Your task to perform on an android device: toggle show notifications on the lock screen Image 0: 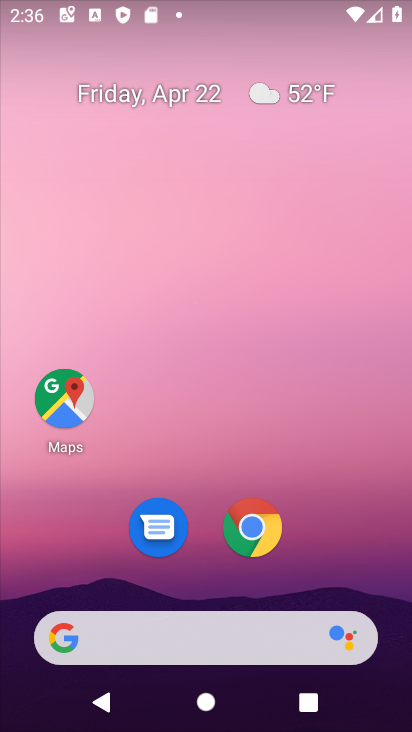
Step 0: drag from (349, 503) to (125, 0)
Your task to perform on an android device: toggle show notifications on the lock screen Image 1: 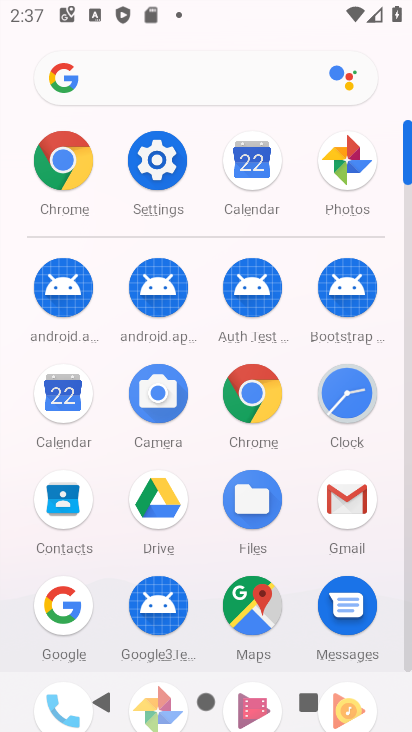
Step 1: click (154, 170)
Your task to perform on an android device: toggle show notifications on the lock screen Image 2: 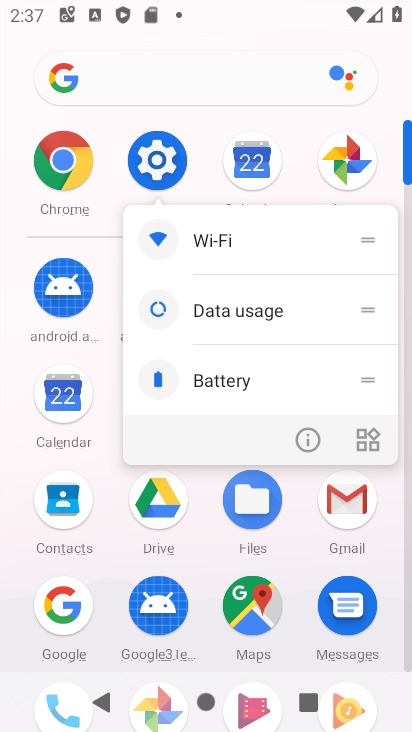
Step 2: click (154, 170)
Your task to perform on an android device: toggle show notifications on the lock screen Image 3: 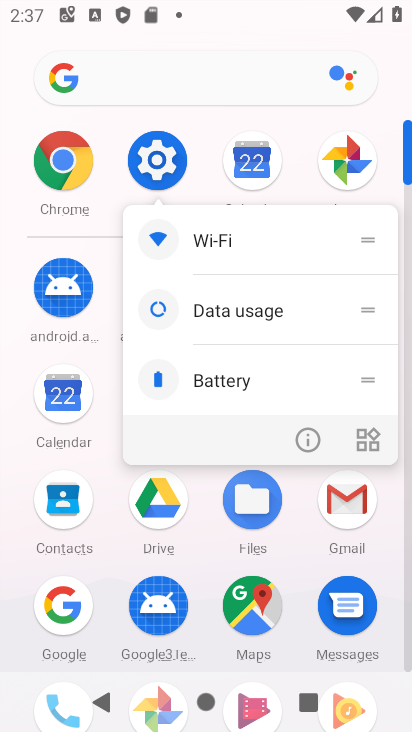
Step 3: click (154, 170)
Your task to perform on an android device: toggle show notifications on the lock screen Image 4: 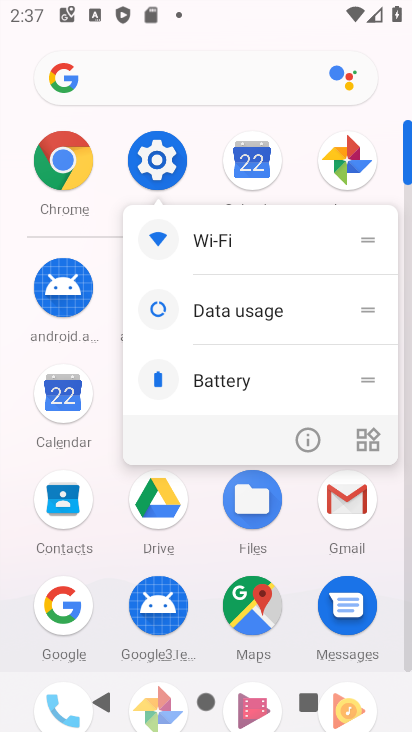
Step 4: click (154, 170)
Your task to perform on an android device: toggle show notifications on the lock screen Image 5: 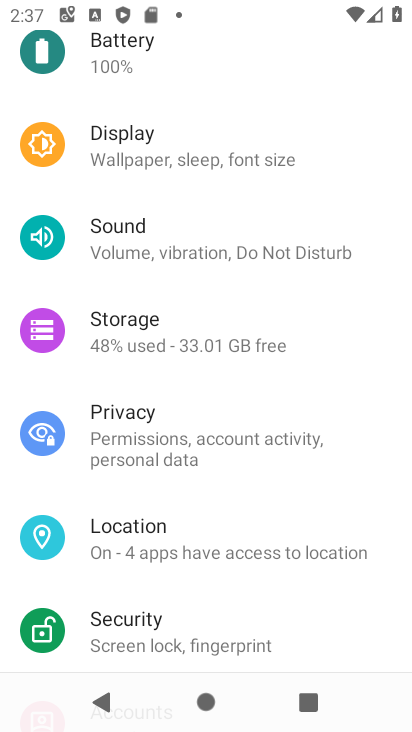
Step 5: drag from (233, 128) to (346, 542)
Your task to perform on an android device: toggle show notifications on the lock screen Image 6: 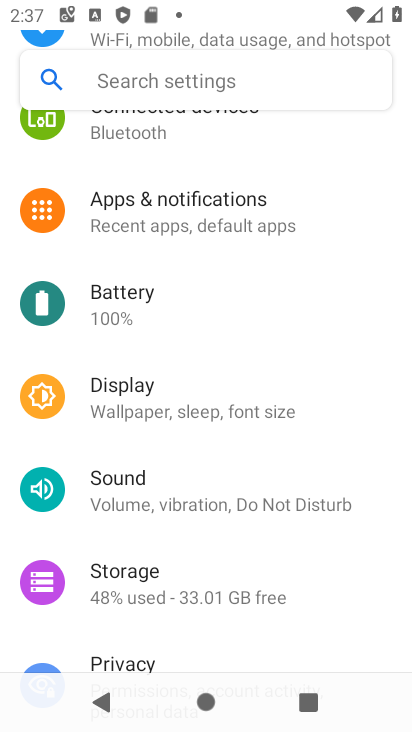
Step 6: drag from (253, 285) to (337, 600)
Your task to perform on an android device: toggle show notifications on the lock screen Image 7: 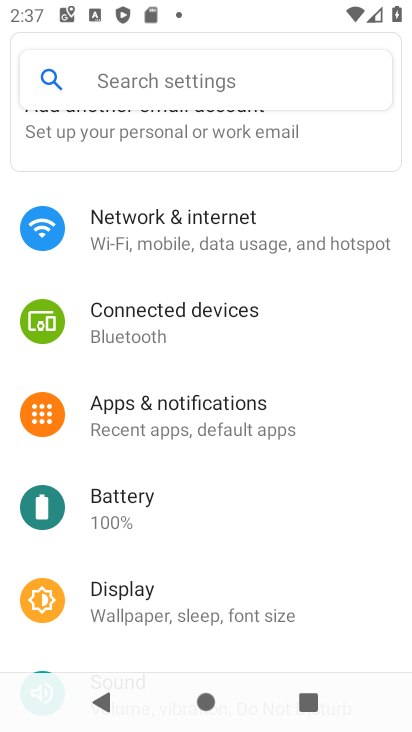
Step 7: drag from (202, 309) to (315, 656)
Your task to perform on an android device: toggle show notifications on the lock screen Image 8: 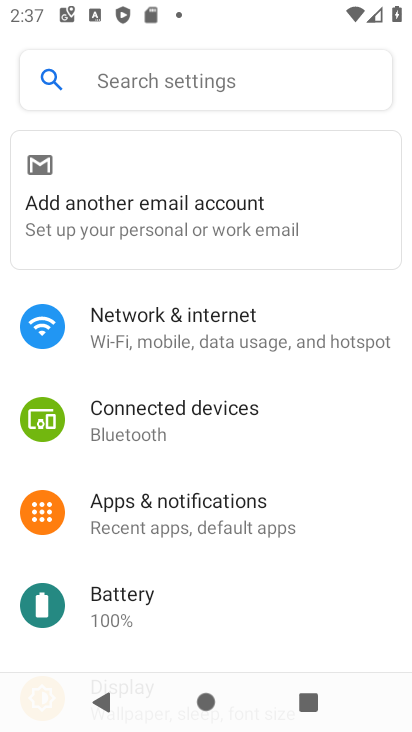
Step 8: click (208, 515)
Your task to perform on an android device: toggle show notifications on the lock screen Image 9: 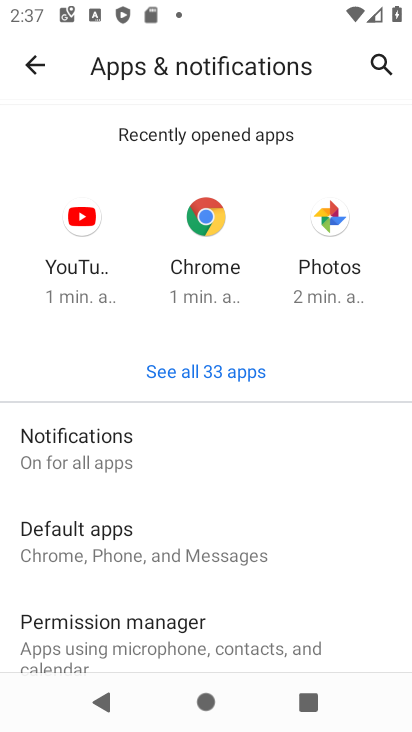
Step 9: click (59, 450)
Your task to perform on an android device: toggle show notifications on the lock screen Image 10: 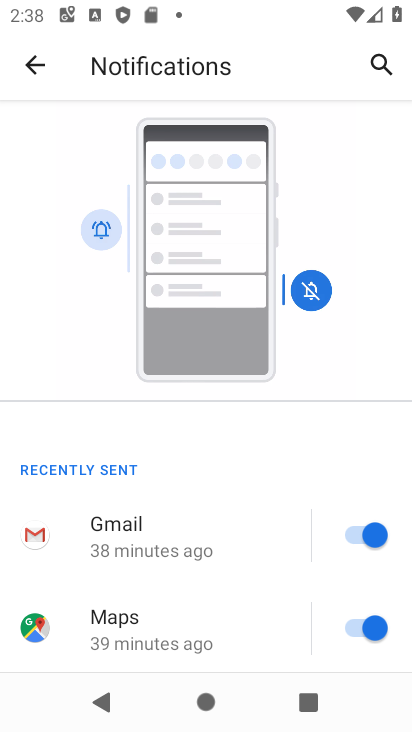
Step 10: drag from (145, 548) to (93, 254)
Your task to perform on an android device: toggle show notifications on the lock screen Image 11: 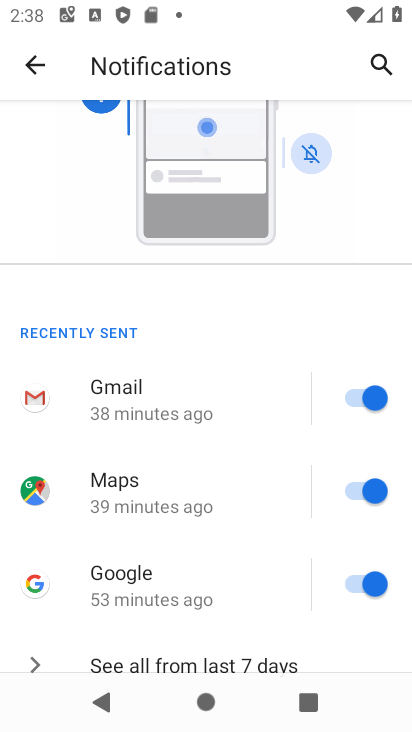
Step 11: drag from (193, 513) to (120, 222)
Your task to perform on an android device: toggle show notifications on the lock screen Image 12: 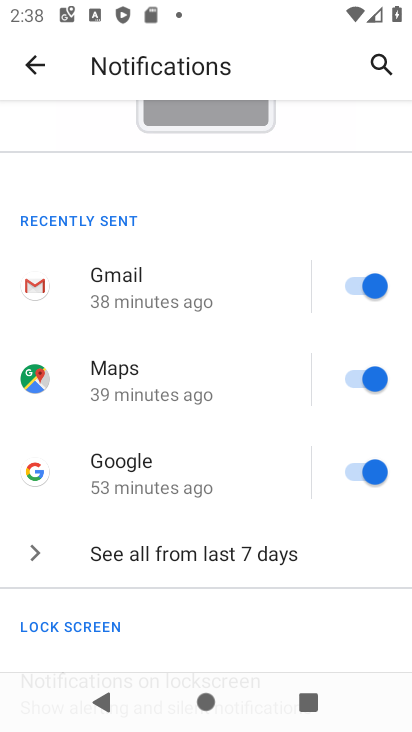
Step 12: drag from (179, 500) to (133, 178)
Your task to perform on an android device: toggle show notifications on the lock screen Image 13: 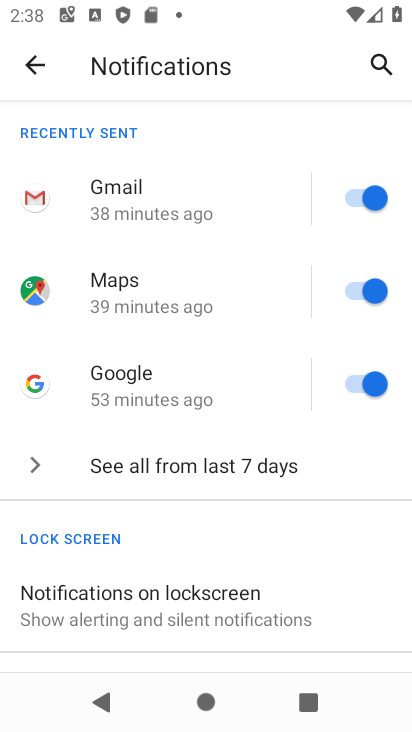
Step 13: drag from (178, 538) to (176, 167)
Your task to perform on an android device: toggle show notifications on the lock screen Image 14: 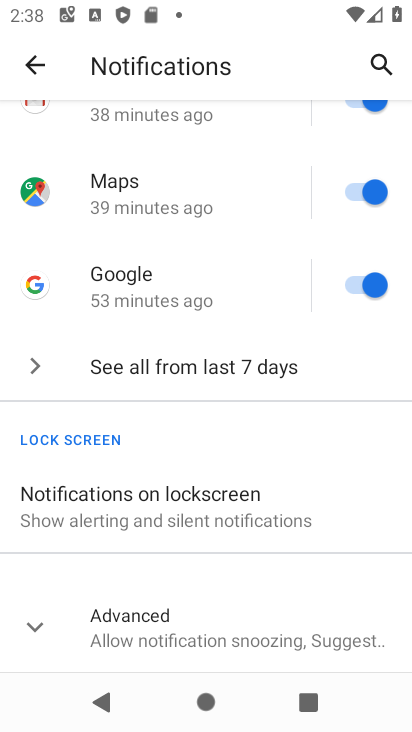
Step 14: click (182, 510)
Your task to perform on an android device: toggle show notifications on the lock screen Image 15: 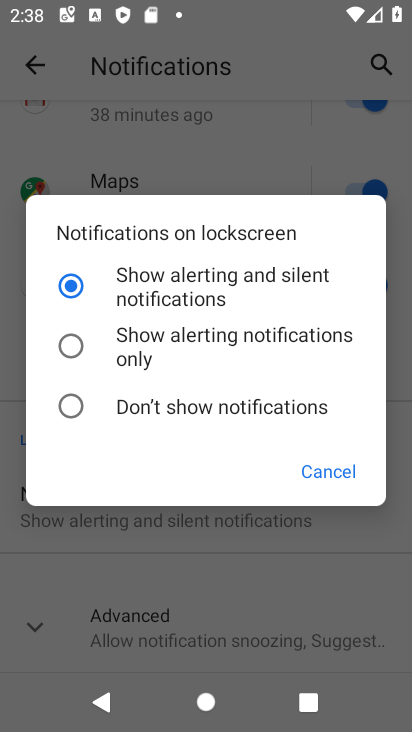
Step 15: click (83, 334)
Your task to perform on an android device: toggle show notifications on the lock screen Image 16: 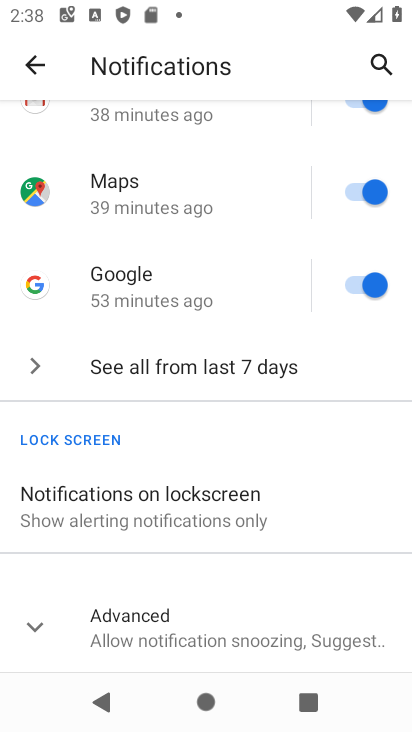
Step 16: task complete